Your task to perform on an android device: Set the phone to "Do not disturb". Image 0: 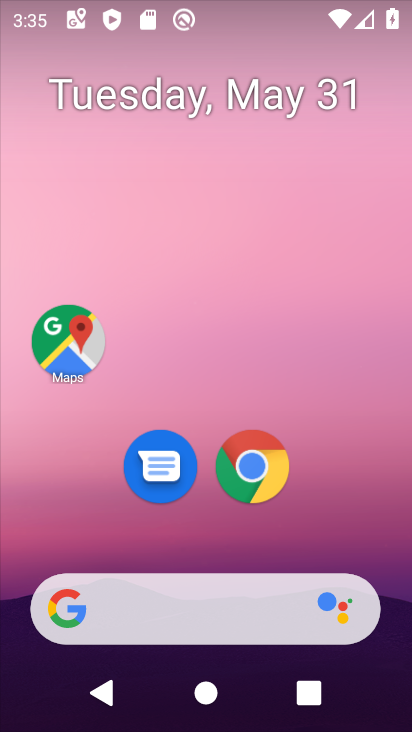
Step 0: drag from (286, 10) to (309, 510)
Your task to perform on an android device: Set the phone to "Do not disturb". Image 1: 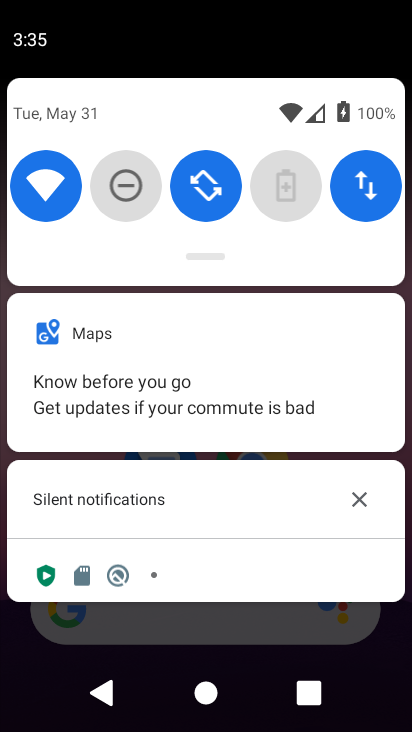
Step 1: click (113, 180)
Your task to perform on an android device: Set the phone to "Do not disturb". Image 2: 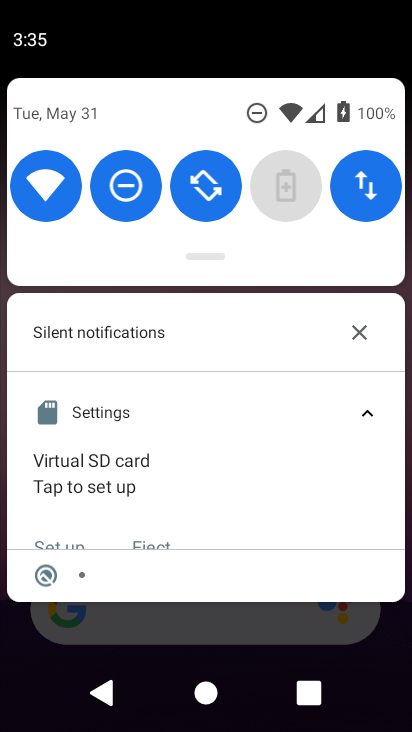
Step 2: task complete